Your task to perform on an android device: Open settings on Google Maps Image 0: 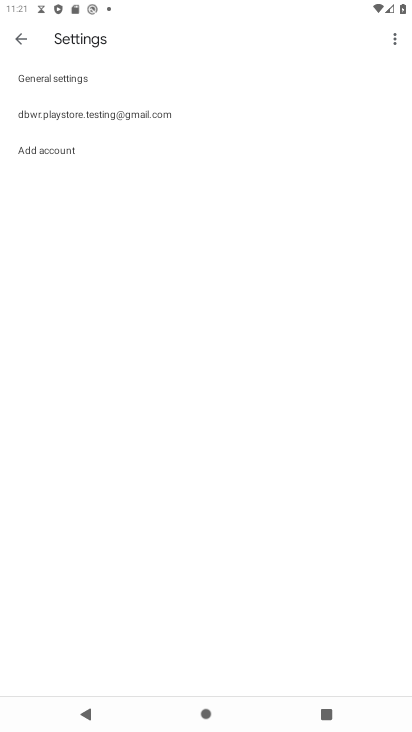
Step 0: press home button
Your task to perform on an android device: Open settings on Google Maps Image 1: 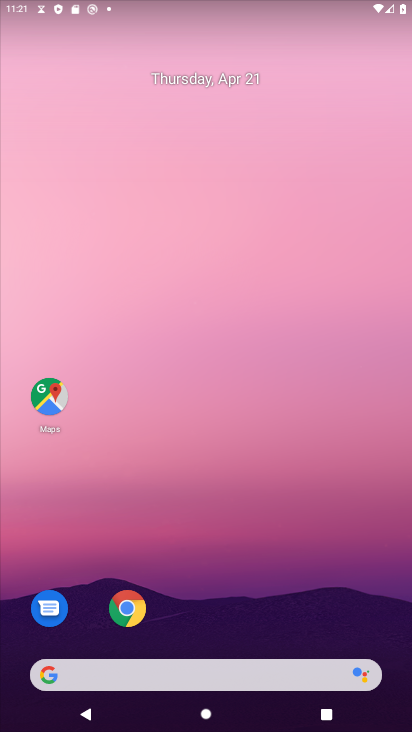
Step 1: click (47, 401)
Your task to perform on an android device: Open settings on Google Maps Image 2: 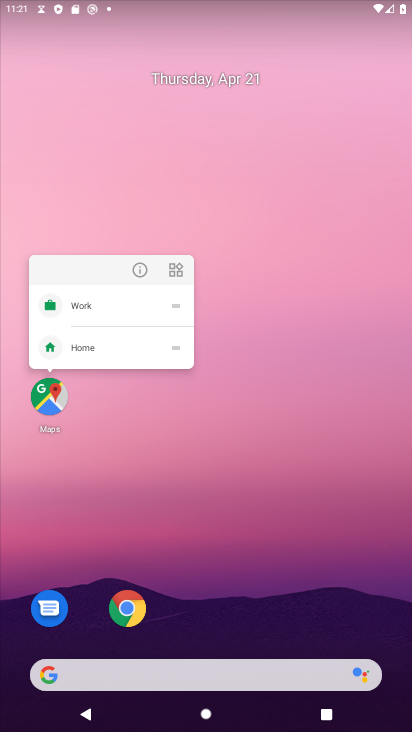
Step 2: click (47, 401)
Your task to perform on an android device: Open settings on Google Maps Image 3: 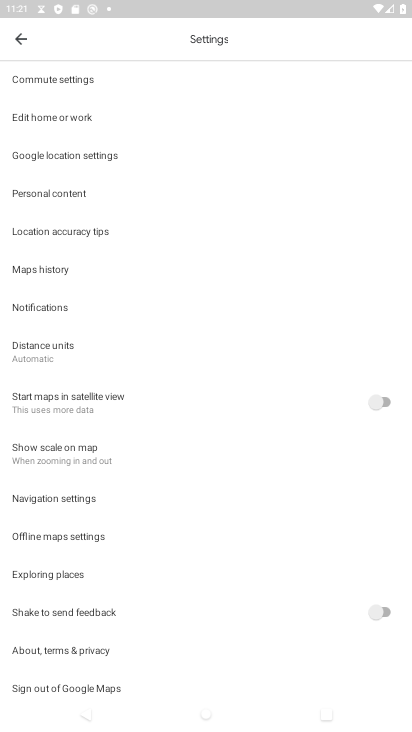
Step 3: task complete